Your task to perform on an android device: check data usage Image 0: 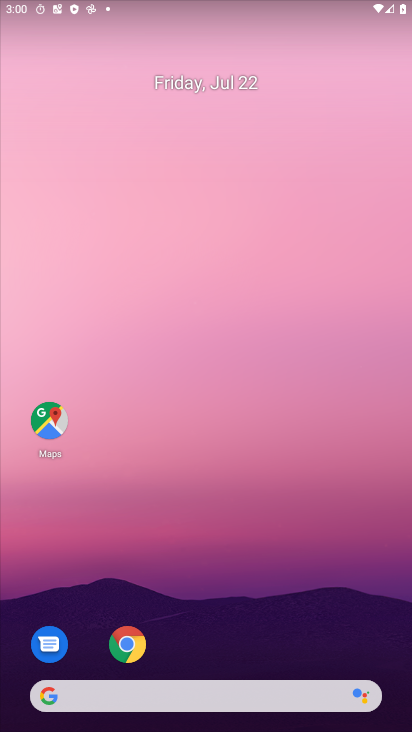
Step 0: drag from (242, 664) to (186, 149)
Your task to perform on an android device: check data usage Image 1: 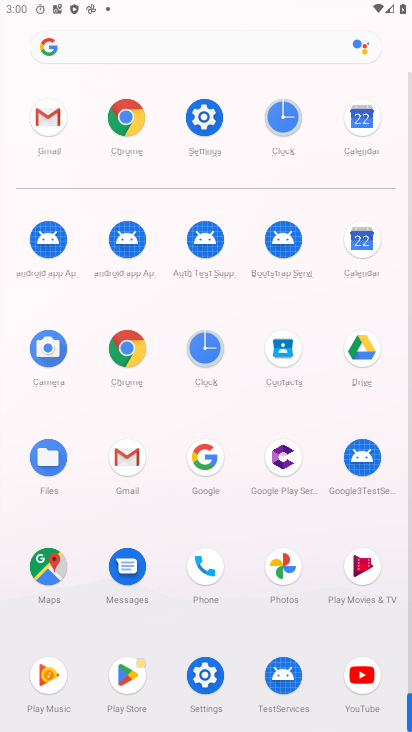
Step 1: click (206, 129)
Your task to perform on an android device: check data usage Image 2: 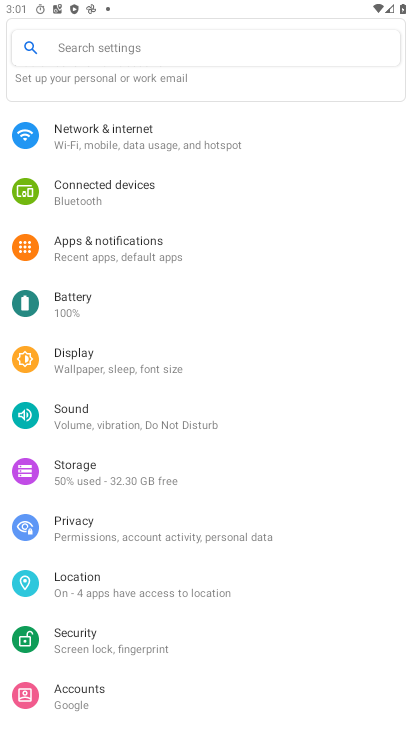
Step 2: click (133, 145)
Your task to perform on an android device: check data usage Image 3: 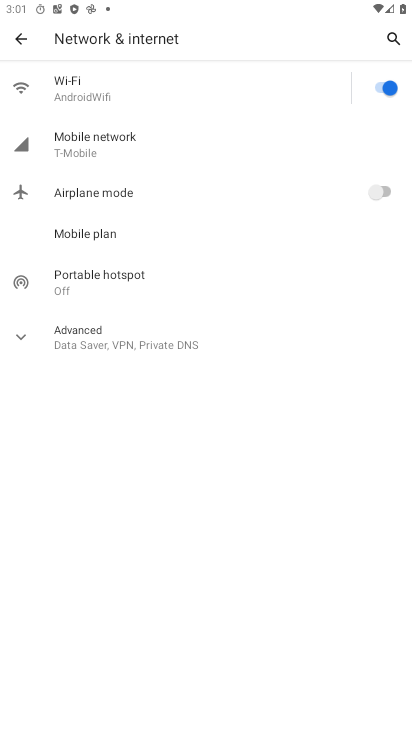
Step 3: click (139, 152)
Your task to perform on an android device: check data usage Image 4: 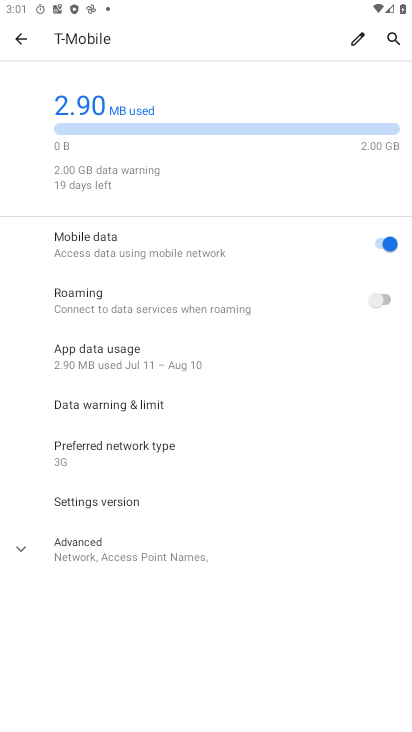
Step 4: click (143, 358)
Your task to perform on an android device: check data usage Image 5: 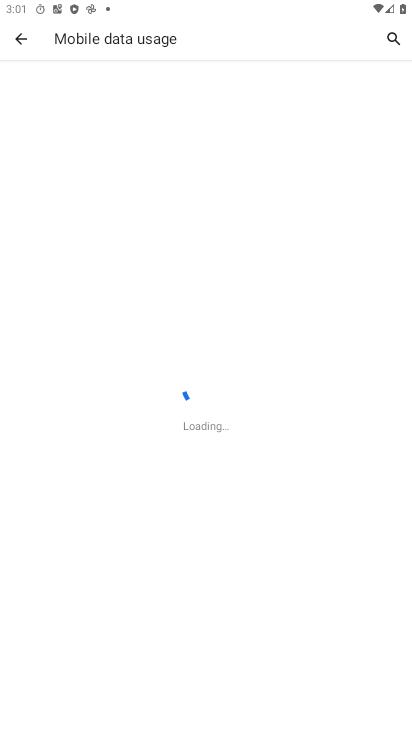
Step 5: task complete